Your task to perform on an android device: Open Google Image 0: 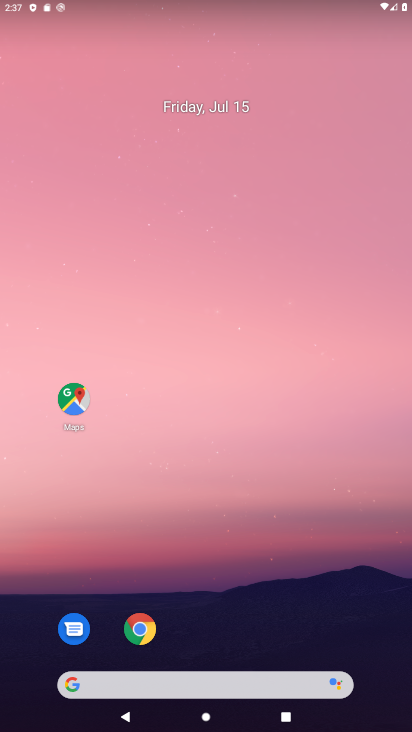
Step 0: drag from (210, 648) to (147, 20)
Your task to perform on an android device: Open Google Image 1: 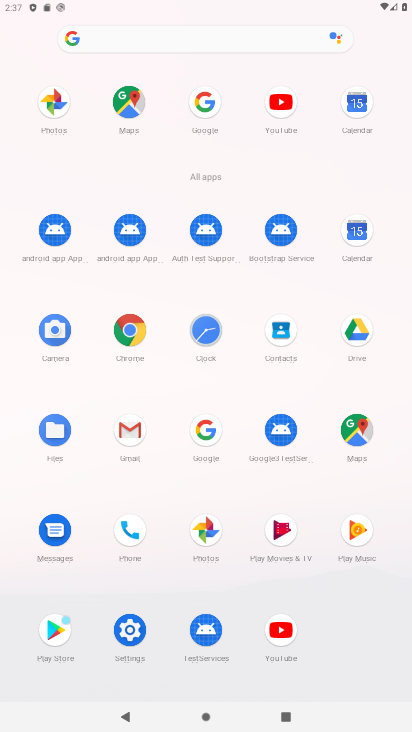
Step 1: click (212, 432)
Your task to perform on an android device: Open Google Image 2: 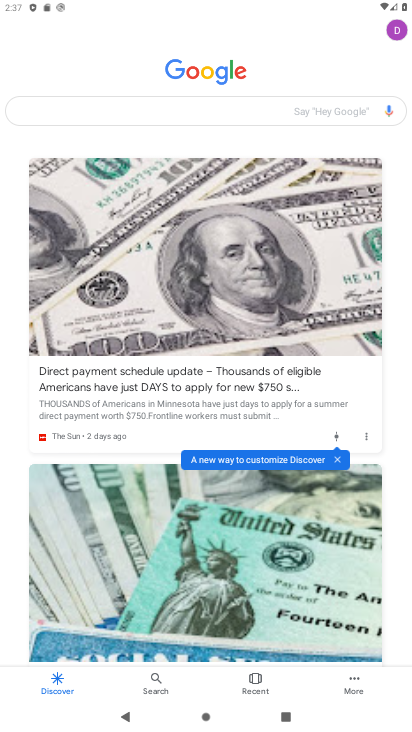
Step 2: task complete